Your task to perform on an android device: turn on sleep mode Image 0: 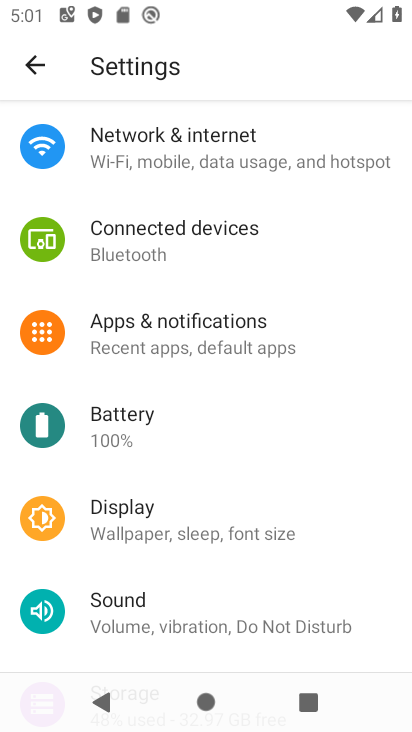
Step 0: drag from (262, 518) to (259, 150)
Your task to perform on an android device: turn on sleep mode Image 1: 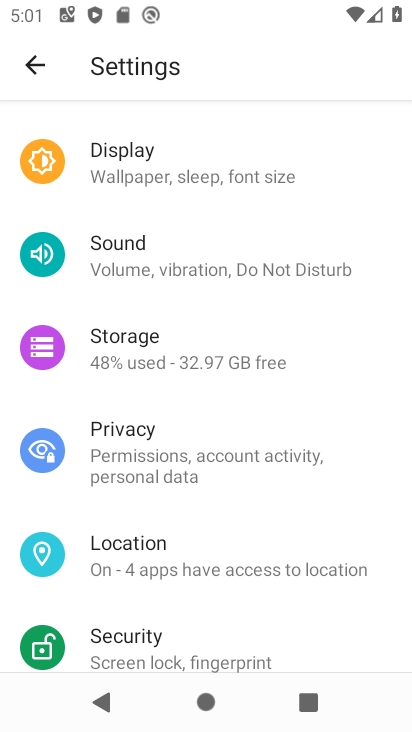
Step 1: drag from (251, 578) to (255, 174)
Your task to perform on an android device: turn on sleep mode Image 2: 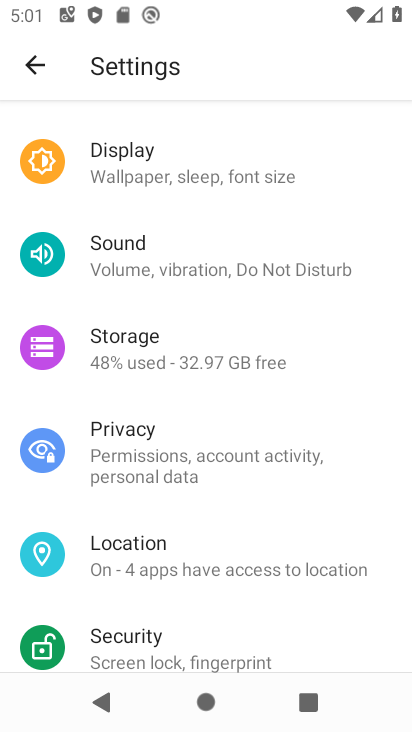
Step 2: drag from (285, 610) to (279, 165)
Your task to perform on an android device: turn on sleep mode Image 3: 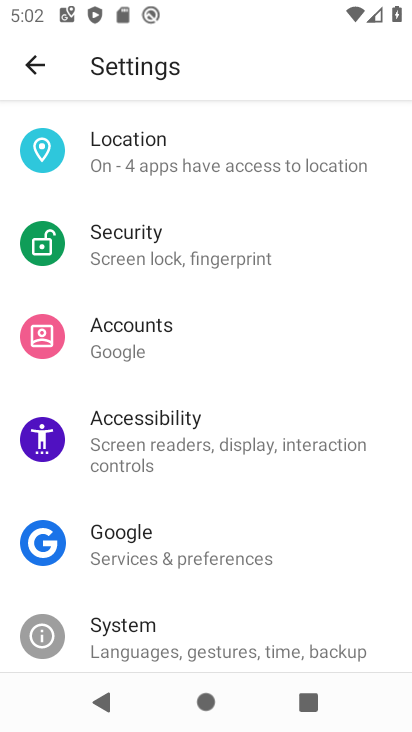
Step 3: drag from (264, 126) to (301, 567)
Your task to perform on an android device: turn on sleep mode Image 4: 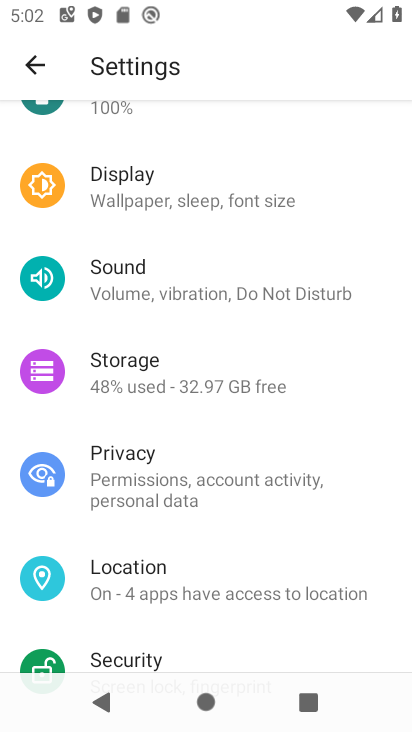
Step 4: drag from (298, 447) to (297, 142)
Your task to perform on an android device: turn on sleep mode Image 5: 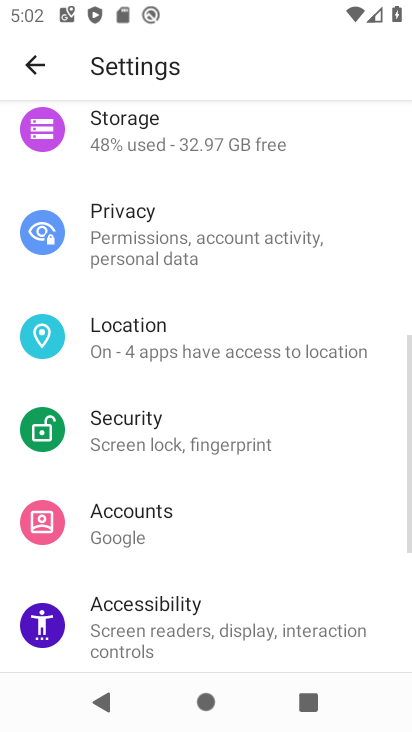
Step 5: drag from (311, 221) to (323, 618)
Your task to perform on an android device: turn on sleep mode Image 6: 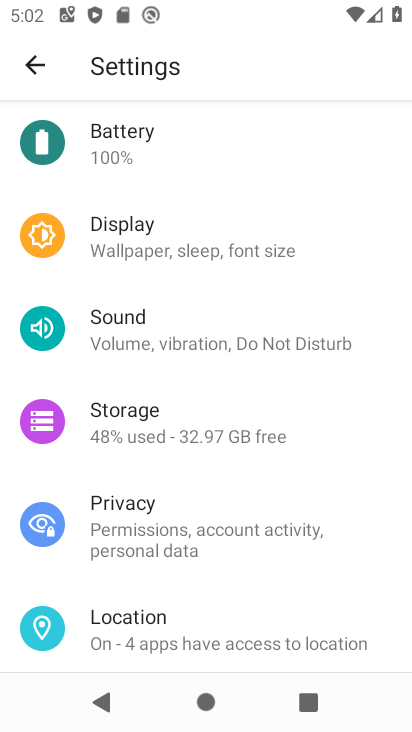
Step 6: drag from (292, 213) to (286, 568)
Your task to perform on an android device: turn on sleep mode Image 7: 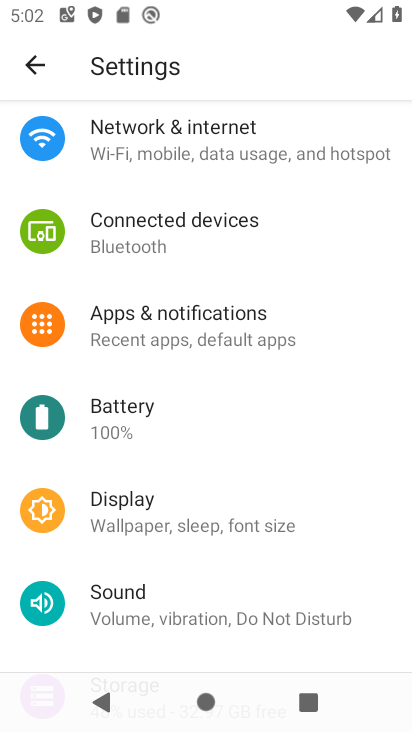
Step 7: drag from (276, 203) to (270, 508)
Your task to perform on an android device: turn on sleep mode Image 8: 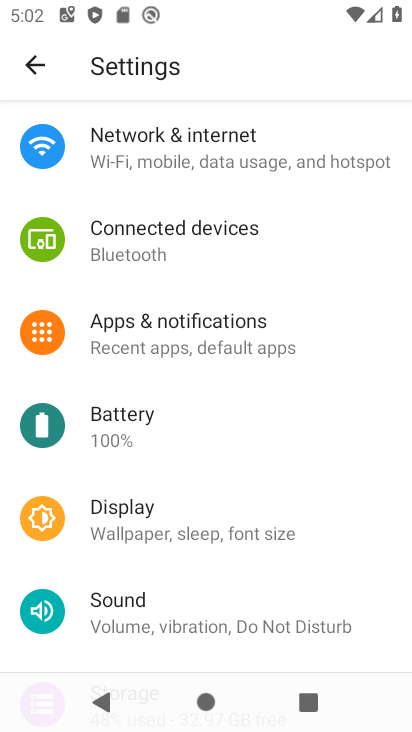
Step 8: click (242, 159)
Your task to perform on an android device: turn on sleep mode Image 9: 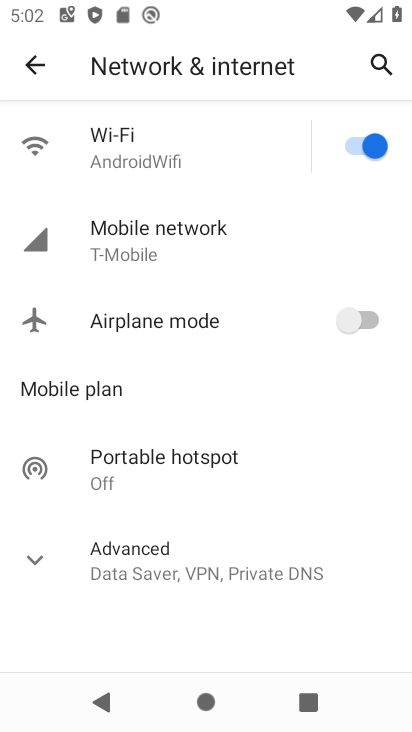
Step 9: click (21, 63)
Your task to perform on an android device: turn on sleep mode Image 10: 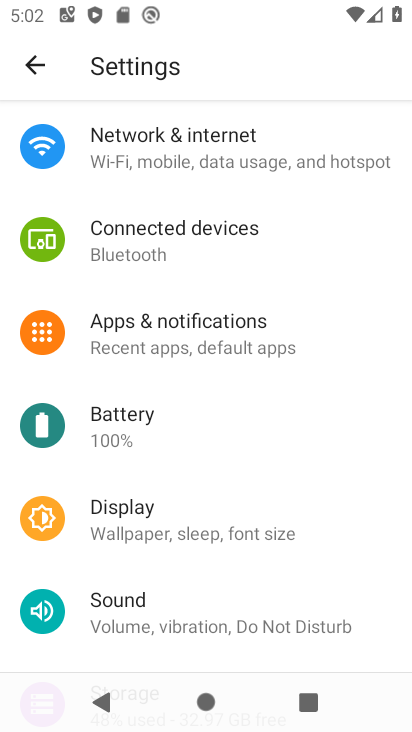
Step 10: click (191, 523)
Your task to perform on an android device: turn on sleep mode Image 11: 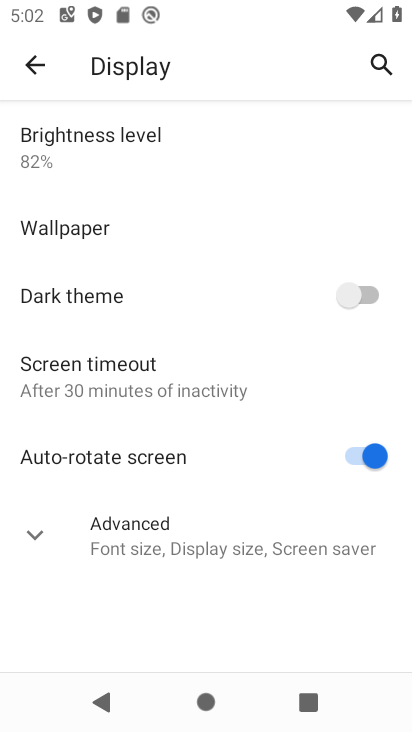
Step 11: click (197, 532)
Your task to perform on an android device: turn on sleep mode Image 12: 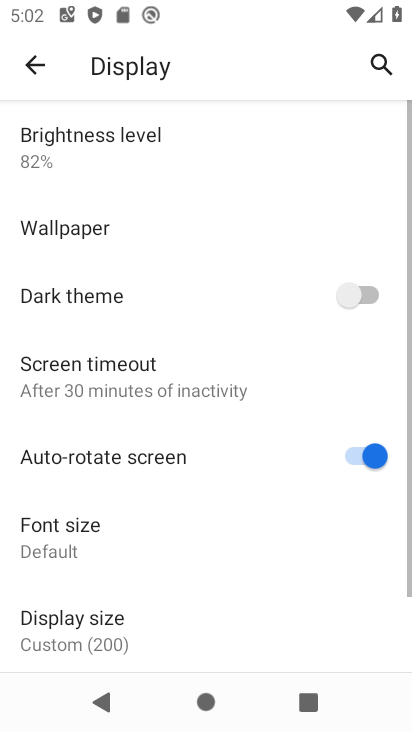
Step 12: task complete